Your task to perform on an android device: delete location history Image 0: 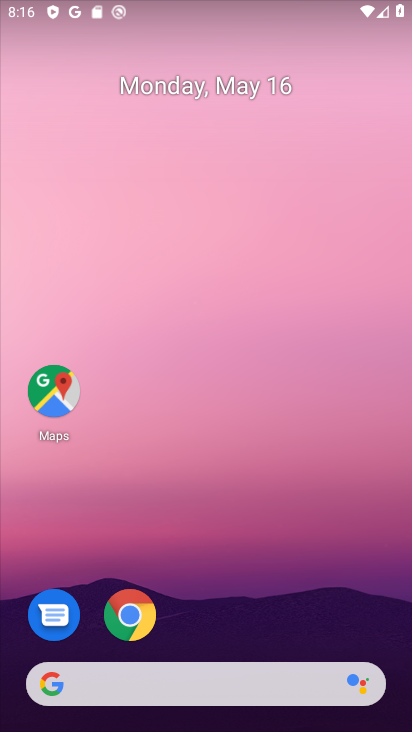
Step 0: drag from (53, 537) to (322, 94)
Your task to perform on an android device: delete location history Image 1: 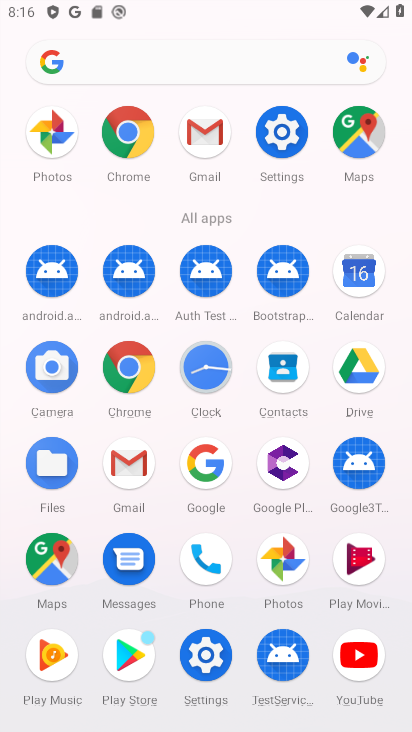
Step 1: click (282, 136)
Your task to perform on an android device: delete location history Image 2: 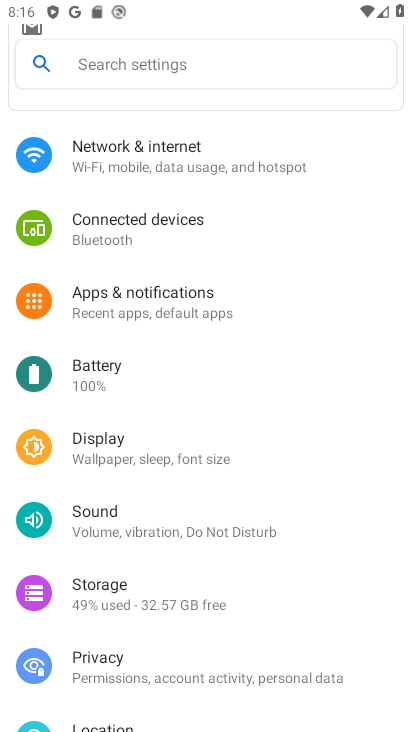
Step 2: drag from (135, 681) to (254, 252)
Your task to perform on an android device: delete location history Image 3: 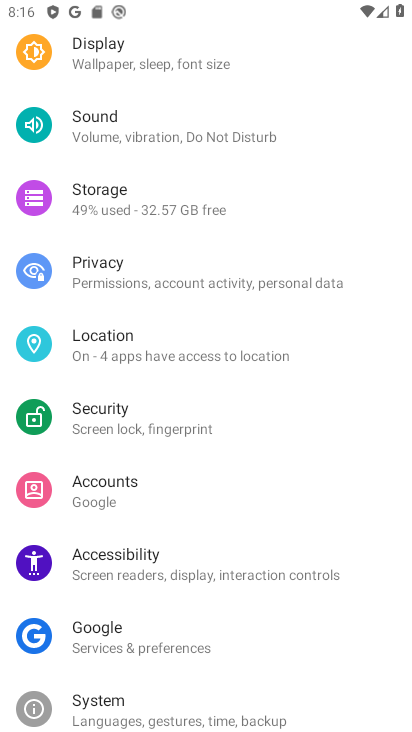
Step 3: click (123, 341)
Your task to perform on an android device: delete location history Image 4: 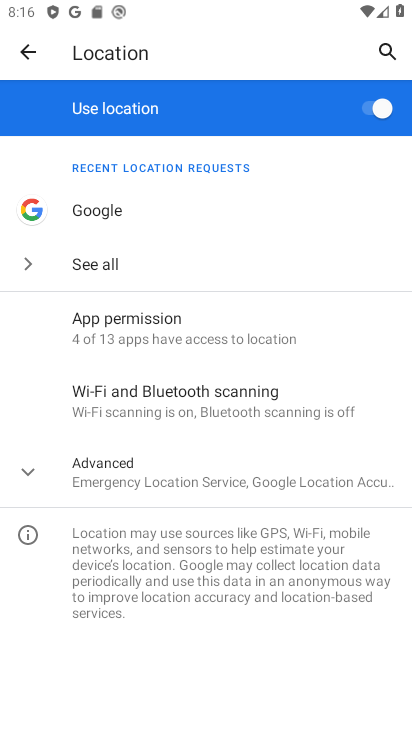
Step 4: click (119, 472)
Your task to perform on an android device: delete location history Image 5: 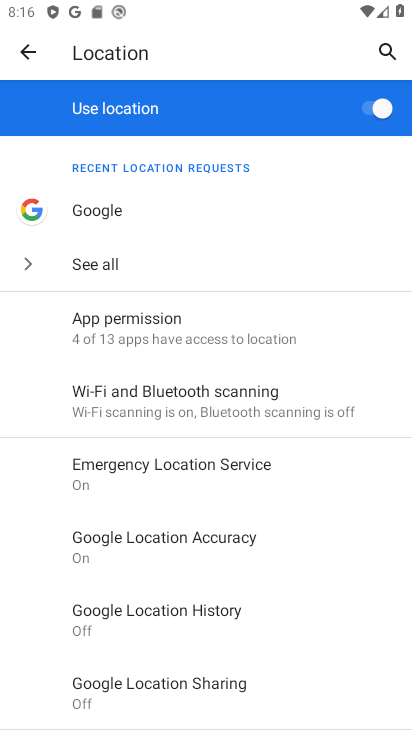
Step 5: click (76, 618)
Your task to perform on an android device: delete location history Image 6: 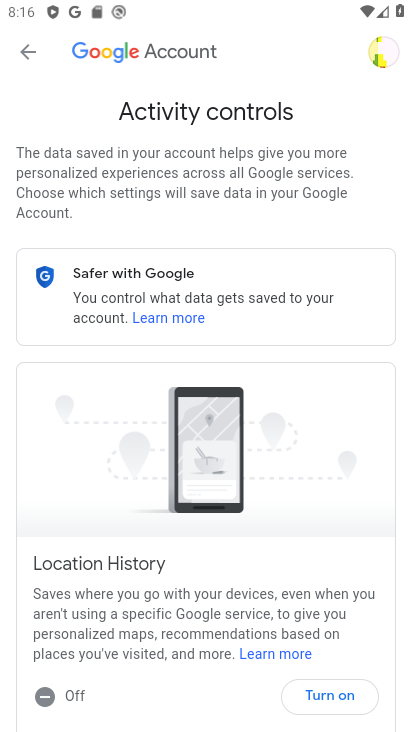
Step 6: drag from (215, 633) to (378, 110)
Your task to perform on an android device: delete location history Image 7: 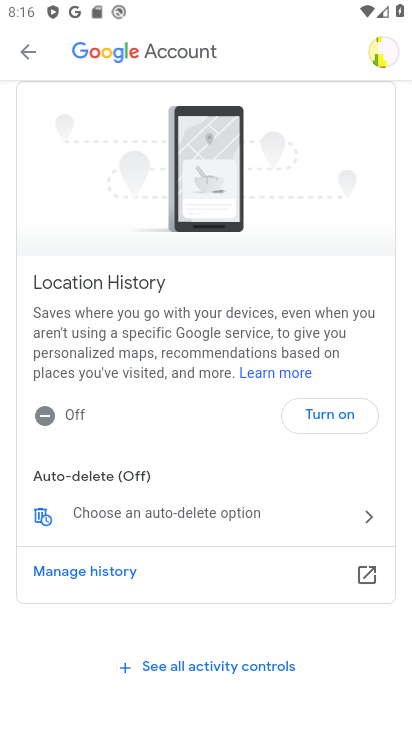
Step 7: click (199, 511)
Your task to perform on an android device: delete location history Image 8: 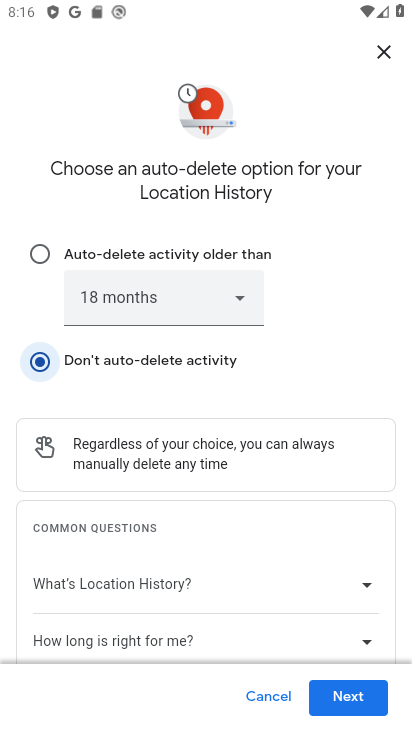
Step 8: click (331, 698)
Your task to perform on an android device: delete location history Image 9: 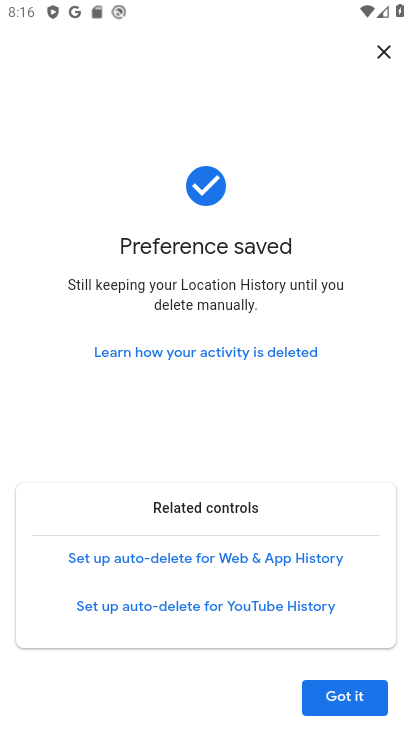
Step 9: click (346, 698)
Your task to perform on an android device: delete location history Image 10: 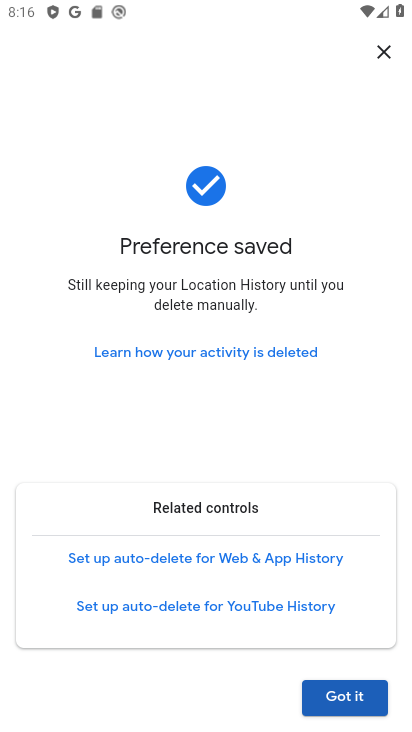
Step 10: task complete